Your task to perform on an android device: install app "Spotify" Image 0: 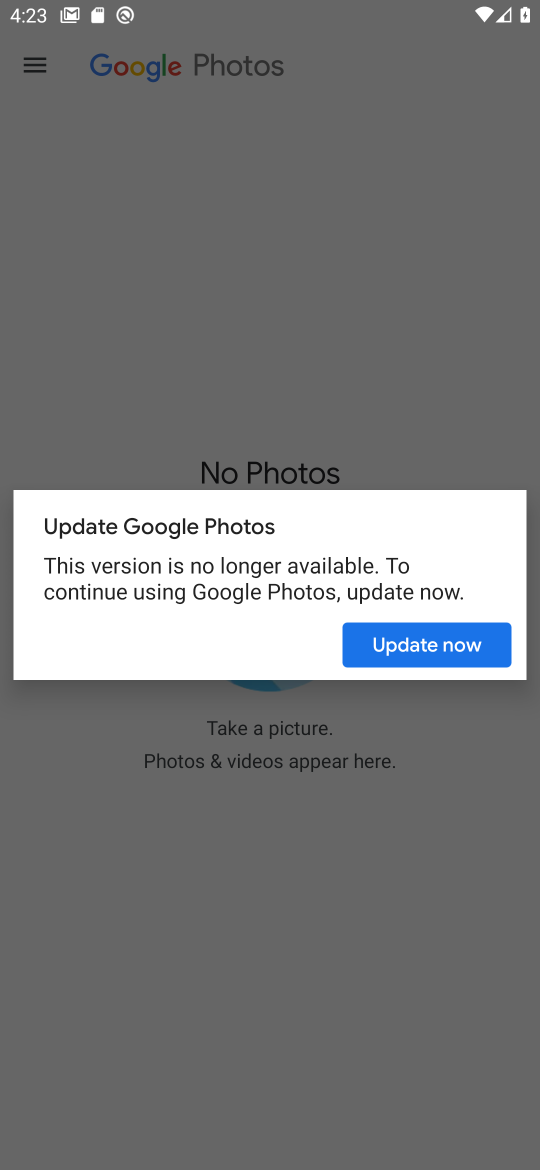
Step 0: press home button
Your task to perform on an android device: install app "Spotify" Image 1: 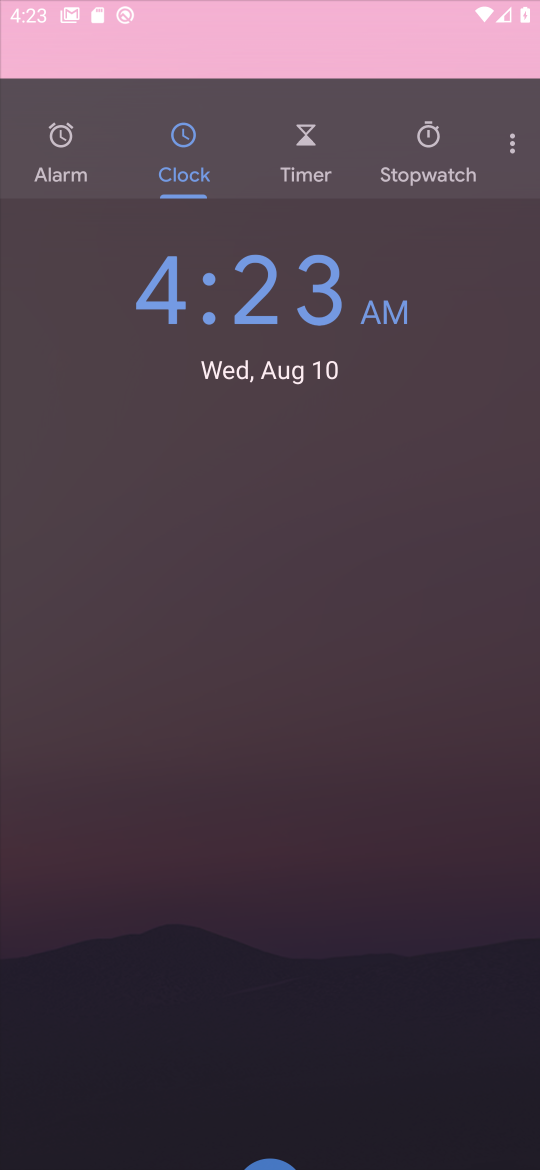
Step 1: press home button
Your task to perform on an android device: install app "Spotify" Image 2: 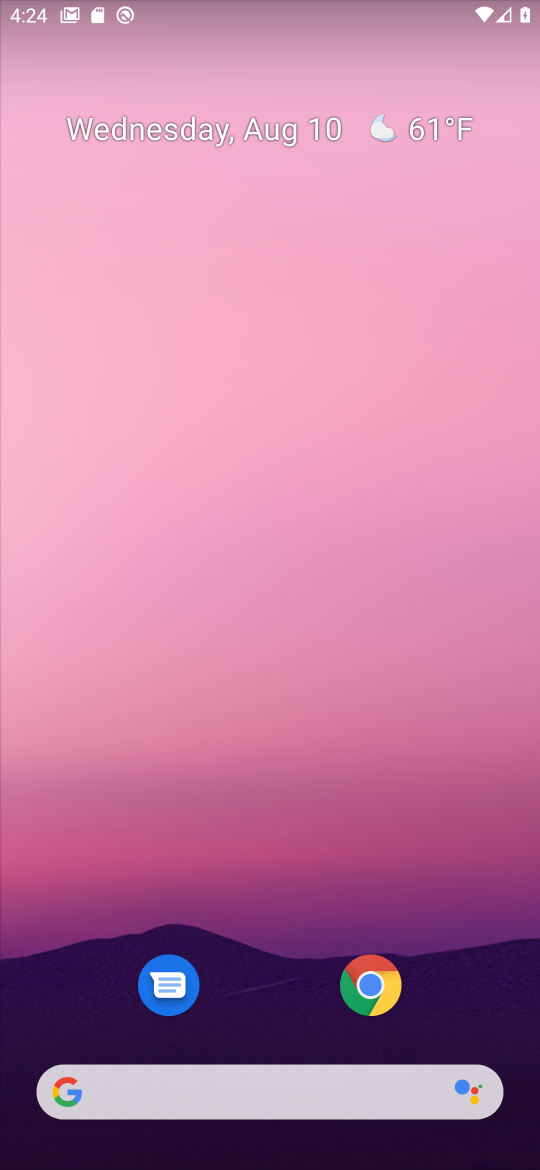
Step 2: drag from (262, 792) to (237, 312)
Your task to perform on an android device: install app "Spotify" Image 3: 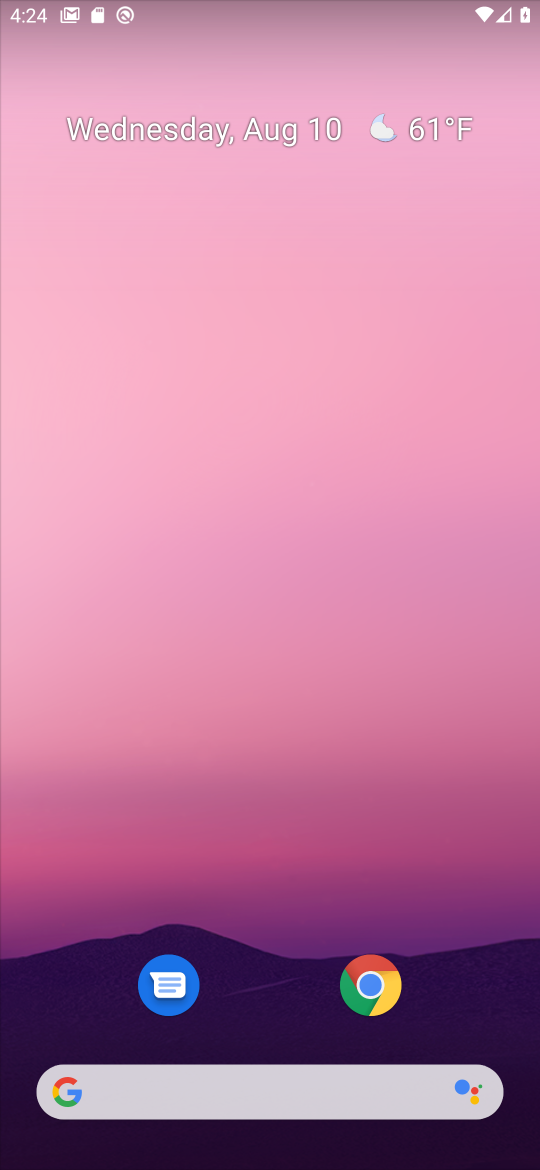
Step 3: click (249, 105)
Your task to perform on an android device: install app "Spotify" Image 4: 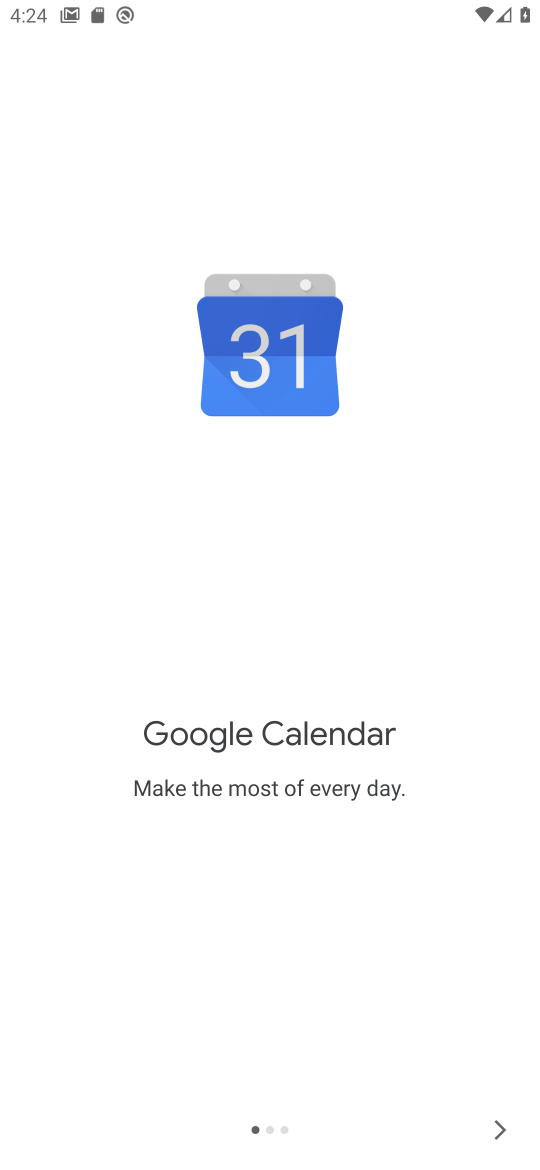
Step 4: drag from (214, 1007) to (231, 98)
Your task to perform on an android device: install app "Spotify" Image 5: 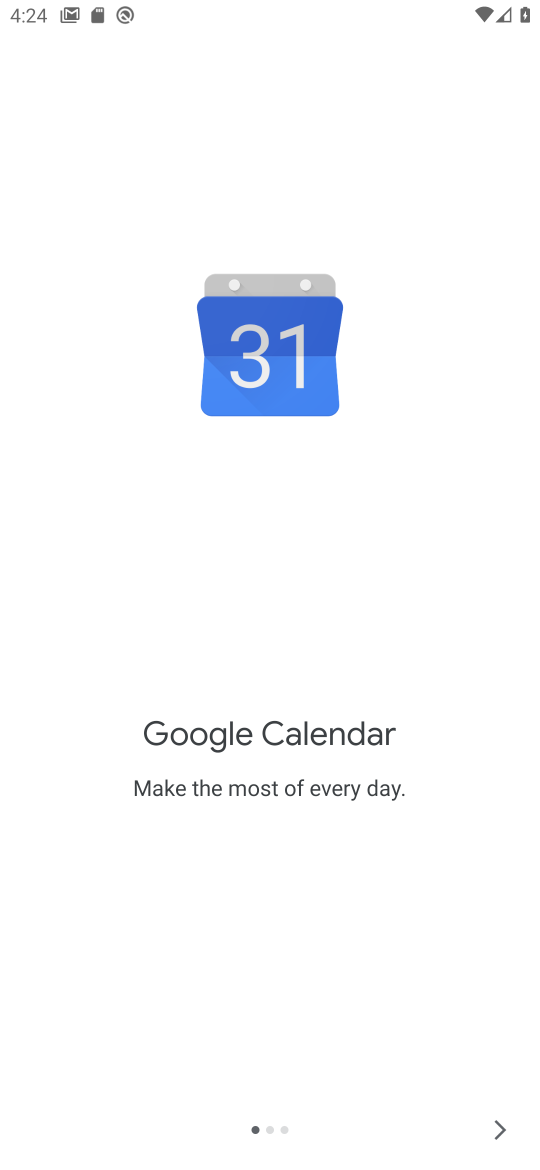
Step 5: click (506, 1128)
Your task to perform on an android device: install app "Spotify" Image 6: 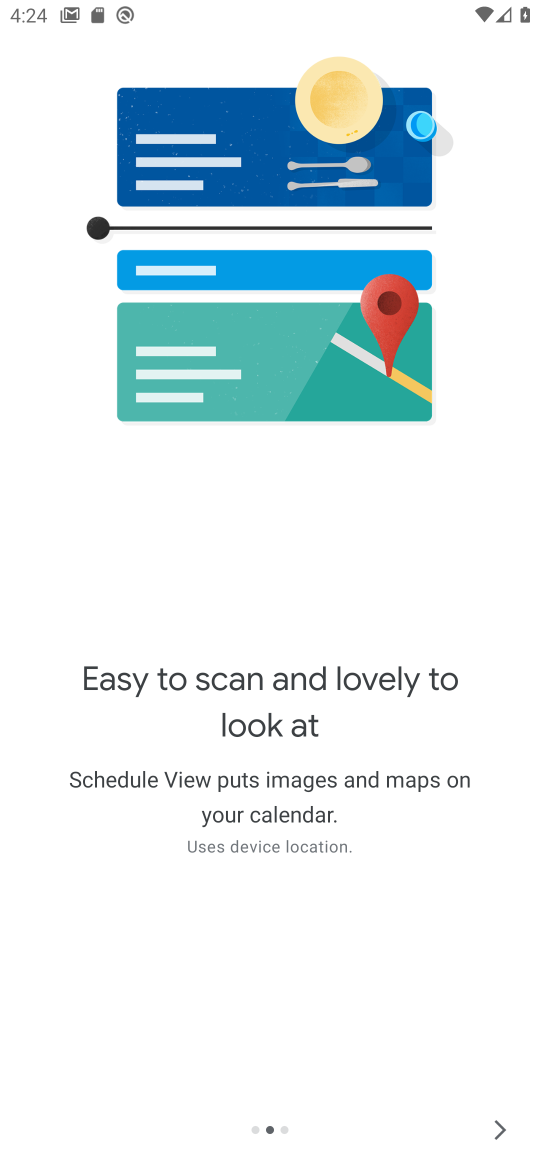
Step 6: click (506, 1128)
Your task to perform on an android device: install app "Spotify" Image 7: 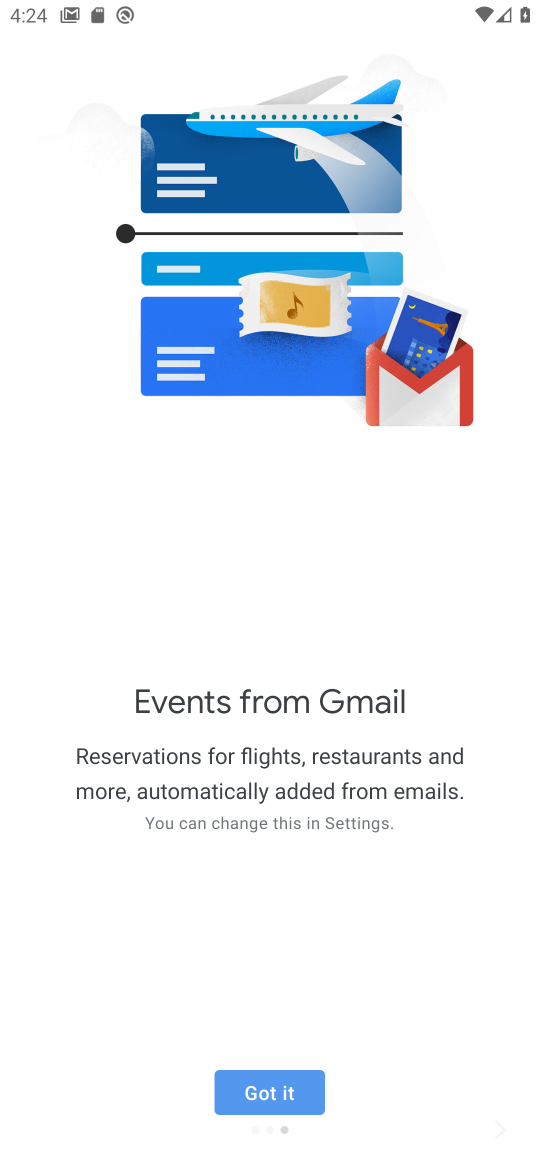
Step 7: click (506, 1128)
Your task to perform on an android device: install app "Spotify" Image 8: 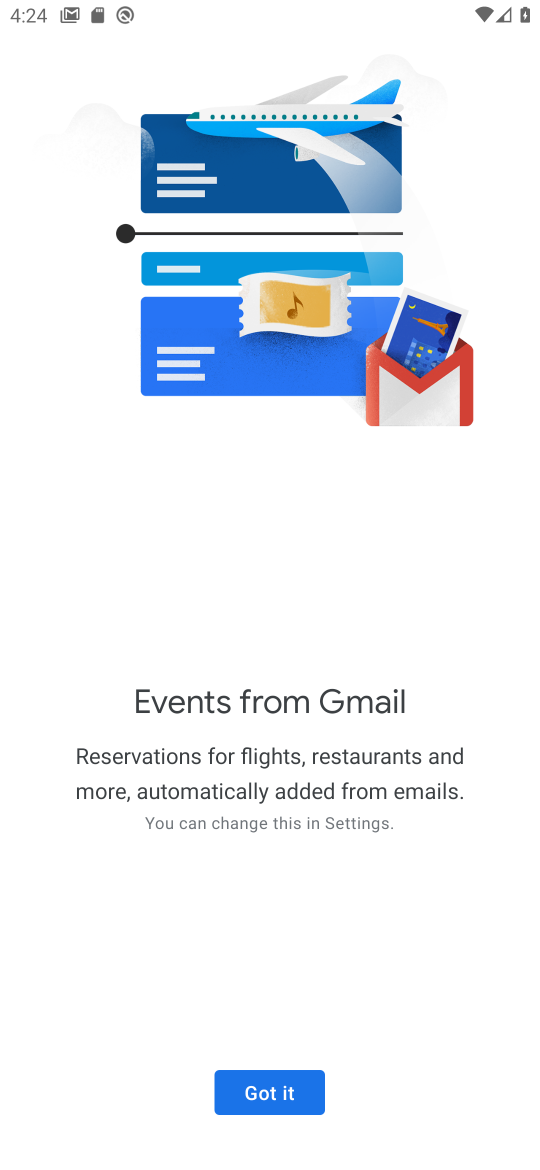
Step 8: click (275, 1096)
Your task to perform on an android device: install app "Spotify" Image 9: 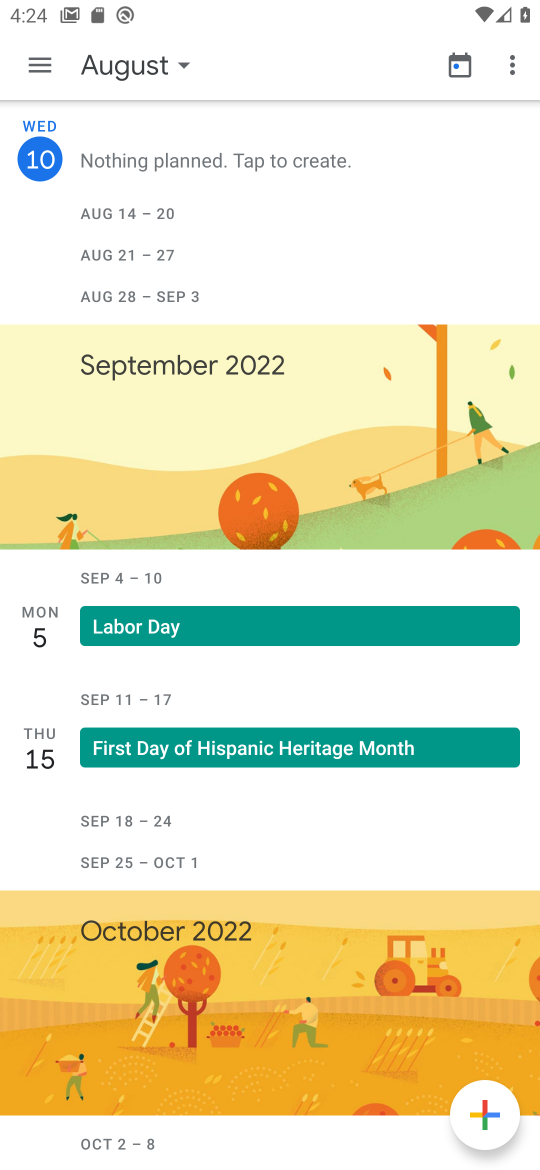
Step 9: press home button
Your task to perform on an android device: install app "Spotify" Image 10: 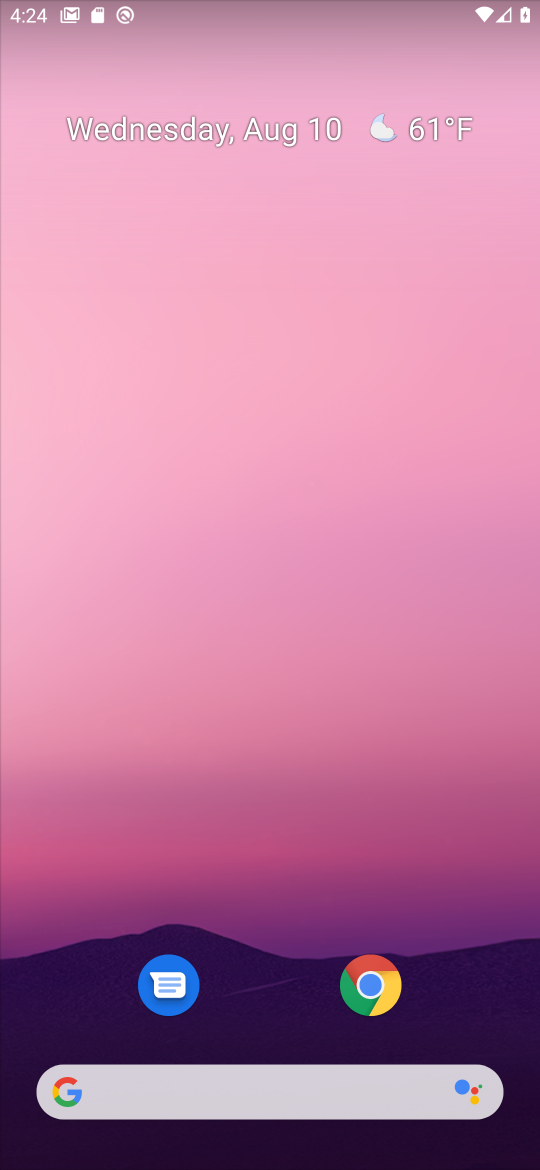
Step 10: drag from (264, 1019) to (253, 173)
Your task to perform on an android device: install app "Spotify" Image 11: 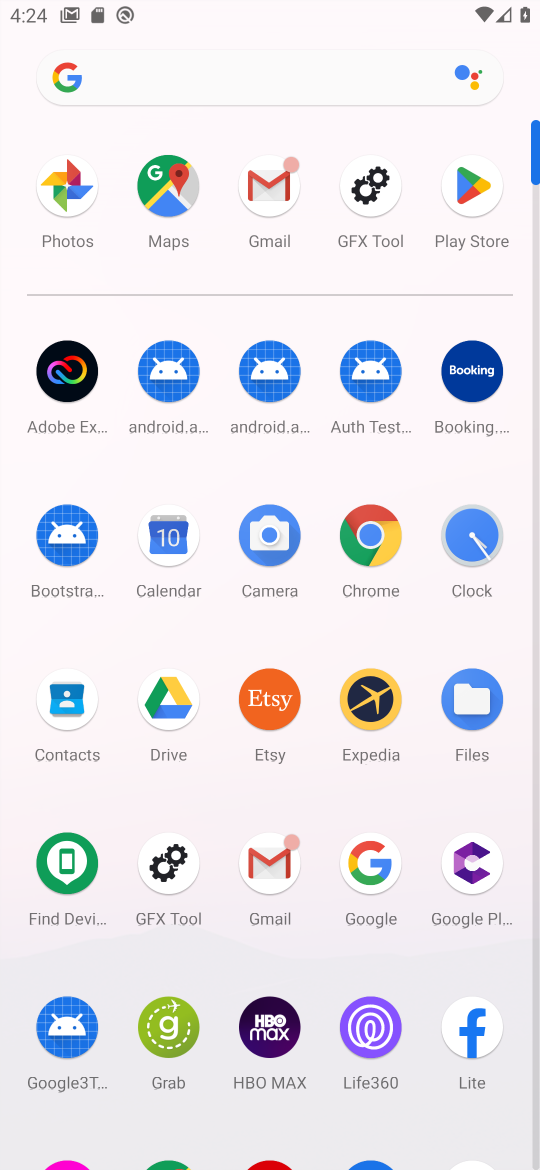
Step 11: click (461, 190)
Your task to perform on an android device: install app "Spotify" Image 12: 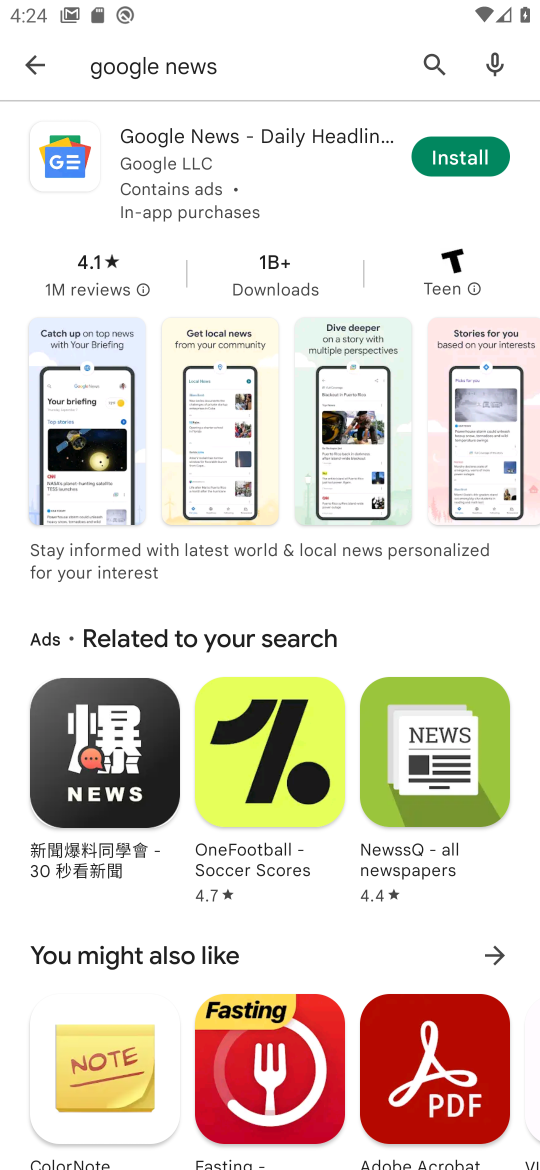
Step 12: click (33, 73)
Your task to perform on an android device: install app "Spotify" Image 13: 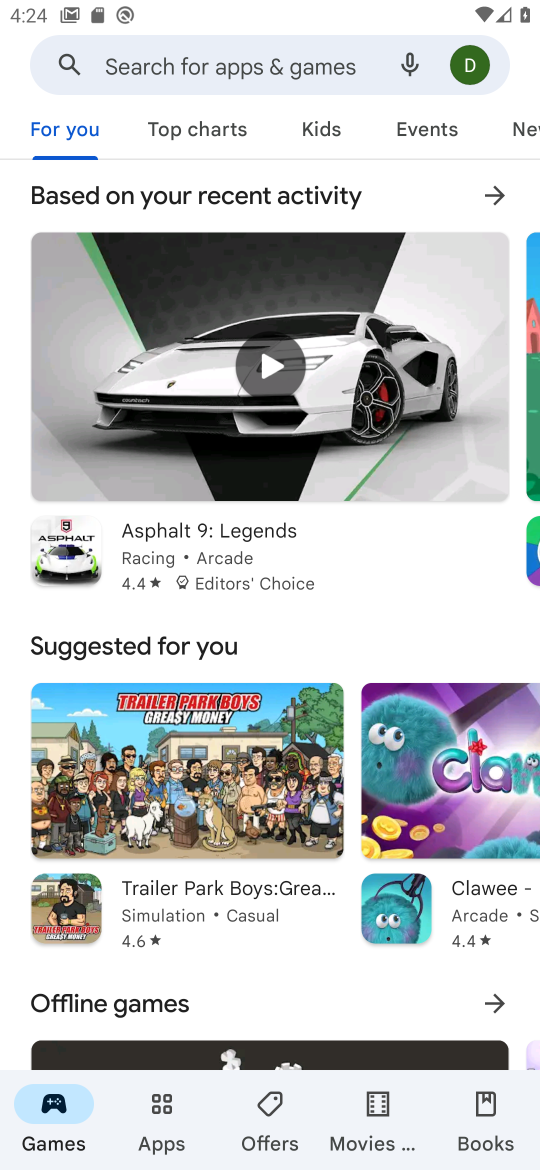
Step 13: click (206, 60)
Your task to perform on an android device: install app "Spotify" Image 14: 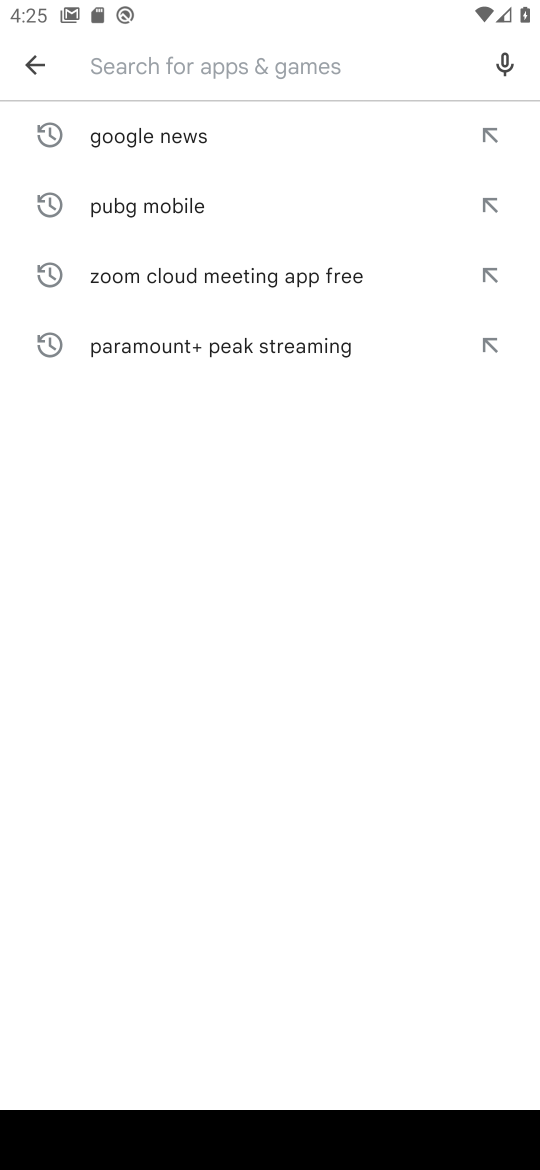
Step 14: type "Spotify"
Your task to perform on an android device: install app "Spotify" Image 15: 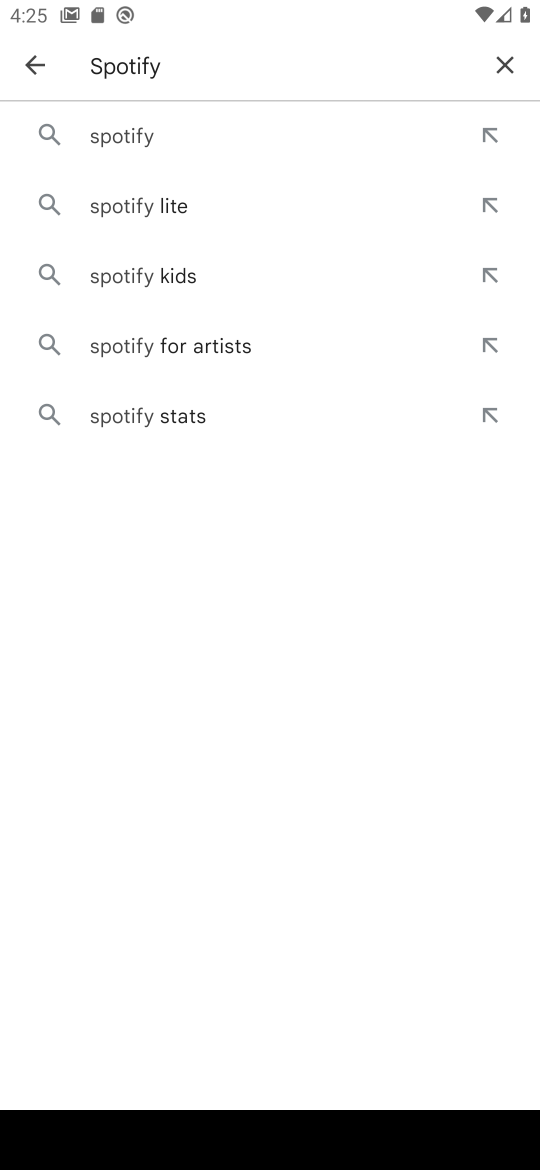
Step 15: click (150, 128)
Your task to perform on an android device: install app "Spotify" Image 16: 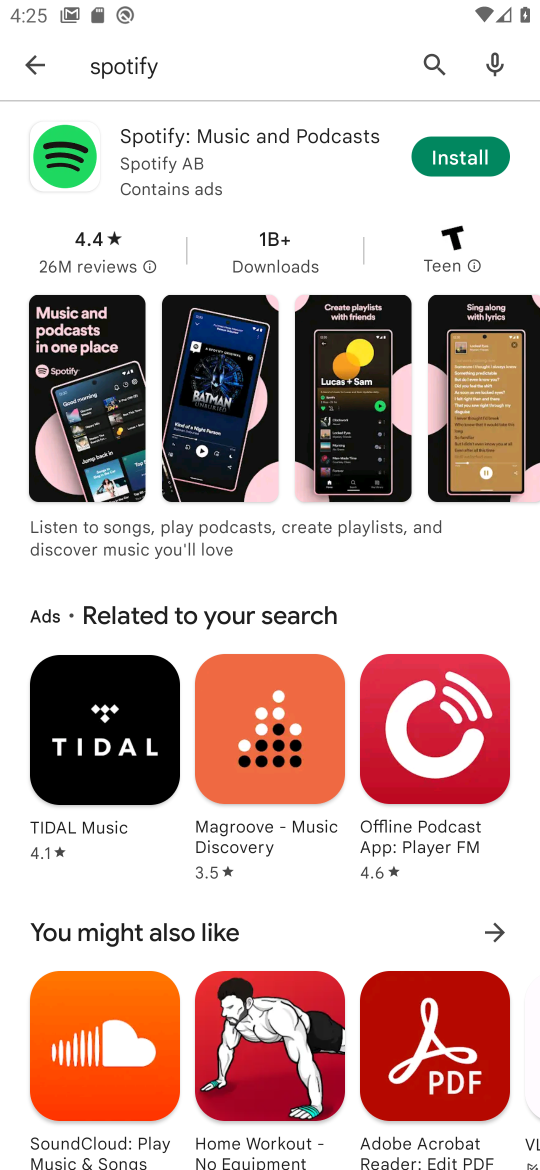
Step 16: click (461, 164)
Your task to perform on an android device: install app "Spotify" Image 17: 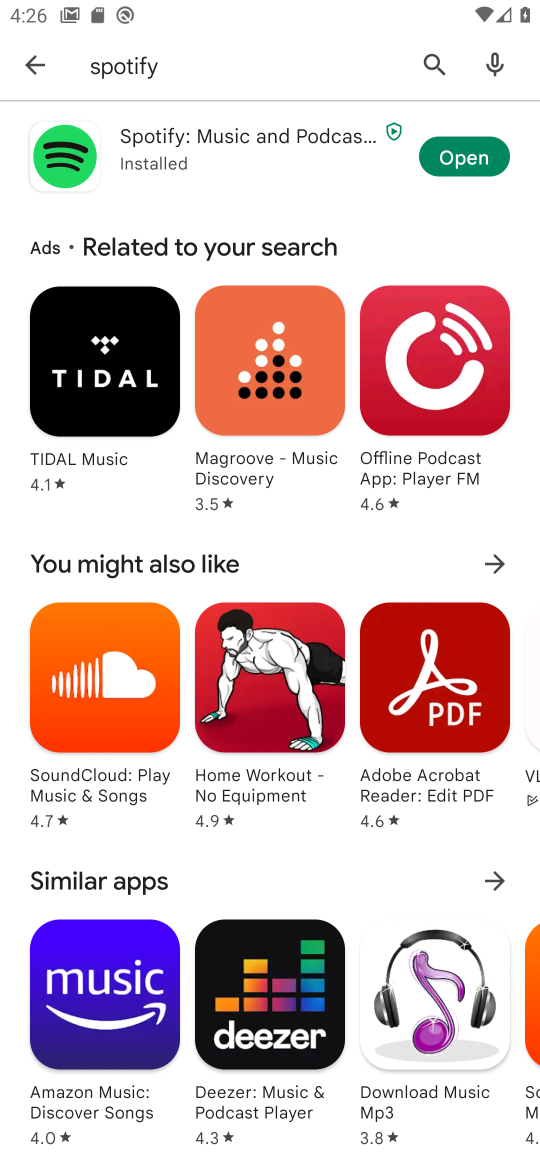
Step 17: click (474, 160)
Your task to perform on an android device: install app "Spotify" Image 18: 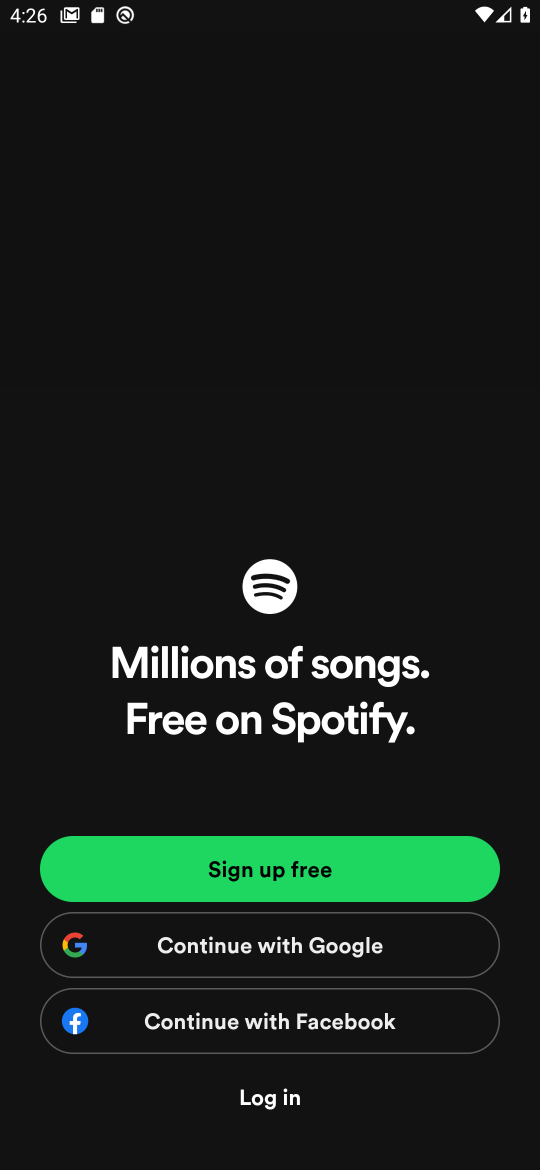
Step 18: task complete